Your task to perform on an android device: Search for vegetarian restaurants on Maps Image 0: 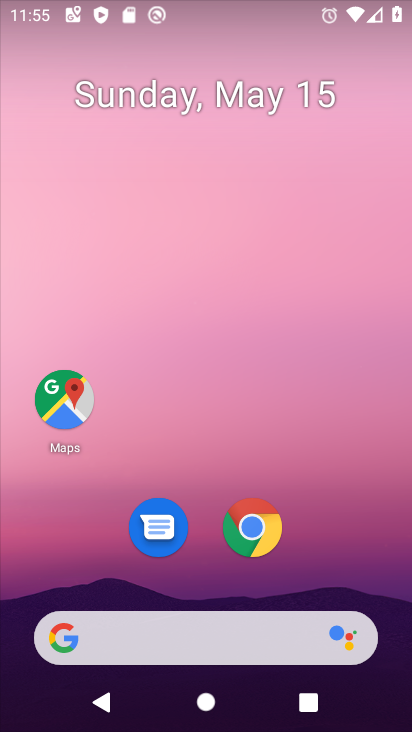
Step 0: click (78, 403)
Your task to perform on an android device: Search for vegetarian restaurants on Maps Image 1: 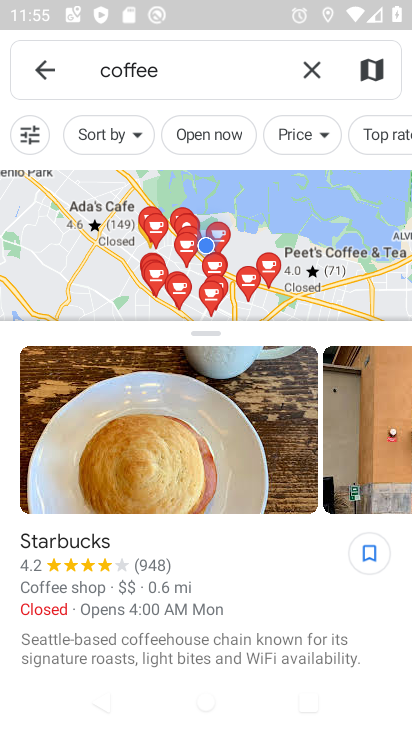
Step 1: click (311, 64)
Your task to perform on an android device: Search for vegetarian restaurants on Maps Image 2: 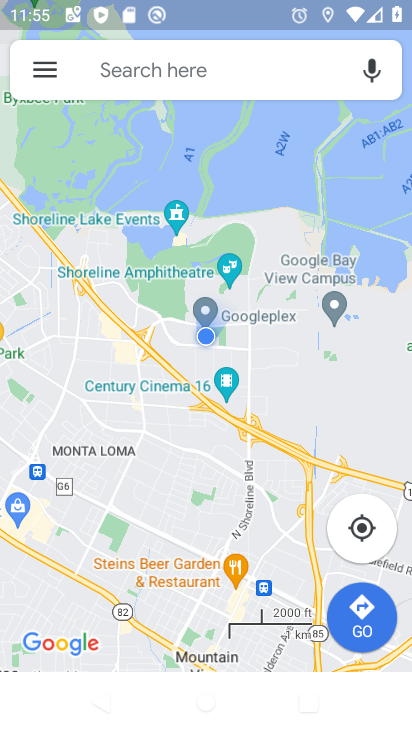
Step 2: click (251, 76)
Your task to perform on an android device: Search for vegetarian restaurants on Maps Image 3: 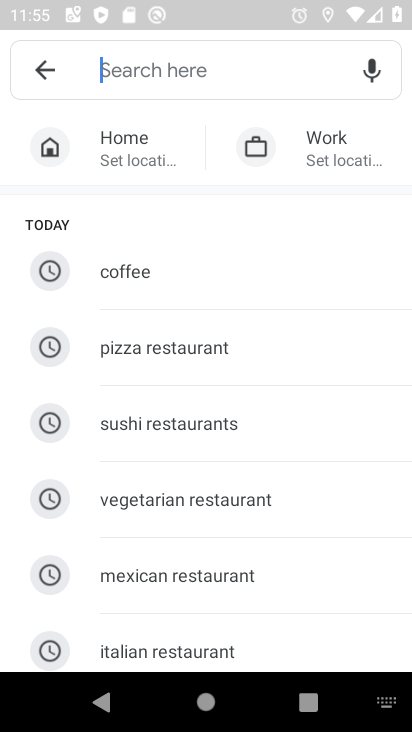
Step 3: click (188, 504)
Your task to perform on an android device: Search for vegetarian restaurants on Maps Image 4: 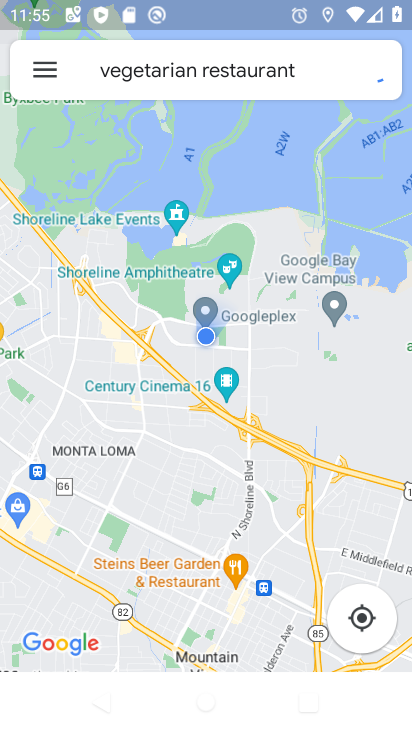
Step 4: task complete